Your task to perform on an android device: Open calendar and show me the third week of next month Image 0: 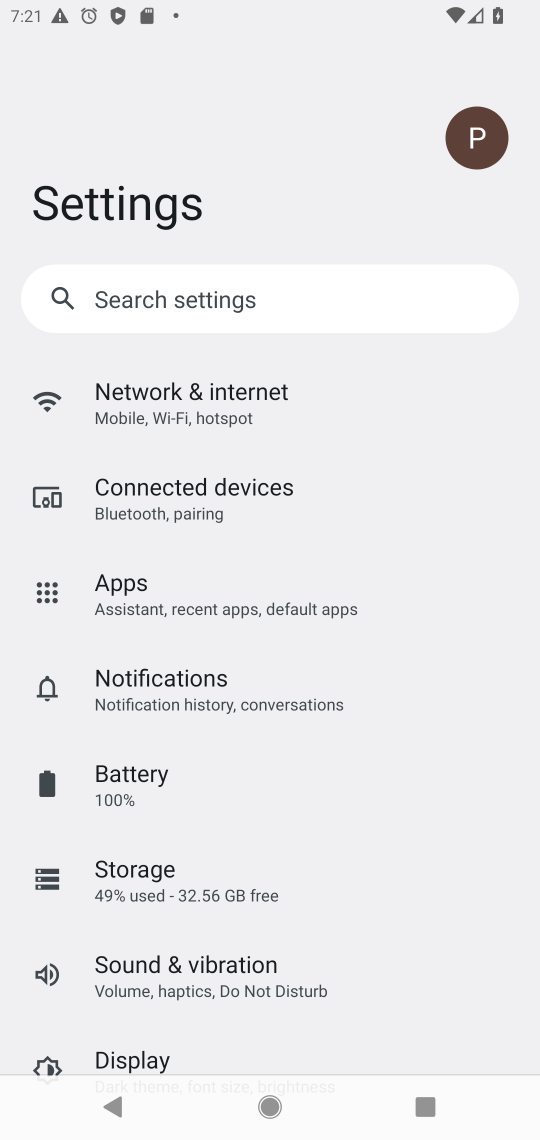
Step 0: press home button
Your task to perform on an android device: Open calendar and show me the third week of next month Image 1: 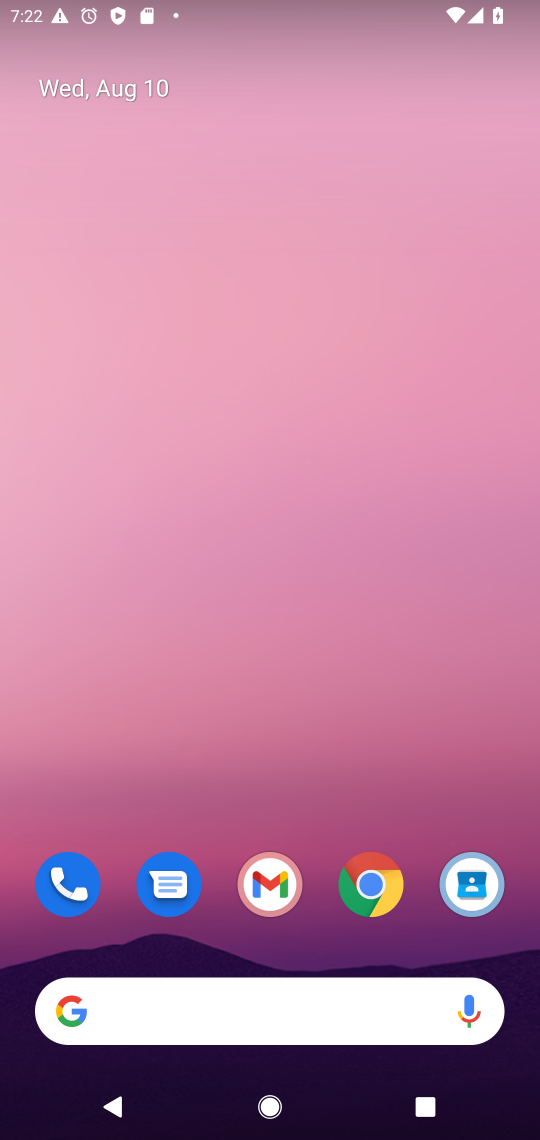
Step 1: drag from (27, 1069) to (252, 488)
Your task to perform on an android device: Open calendar and show me the third week of next month Image 2: 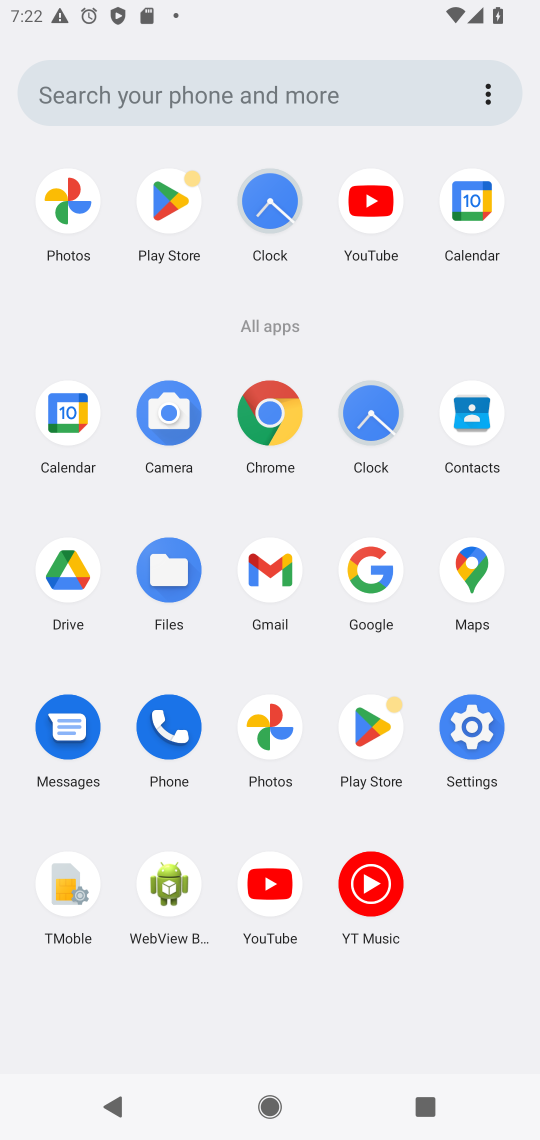
Step 2: click (471, 424)
Your task to perform on an android device: Open calendar and show me the third week of next month Image 3: 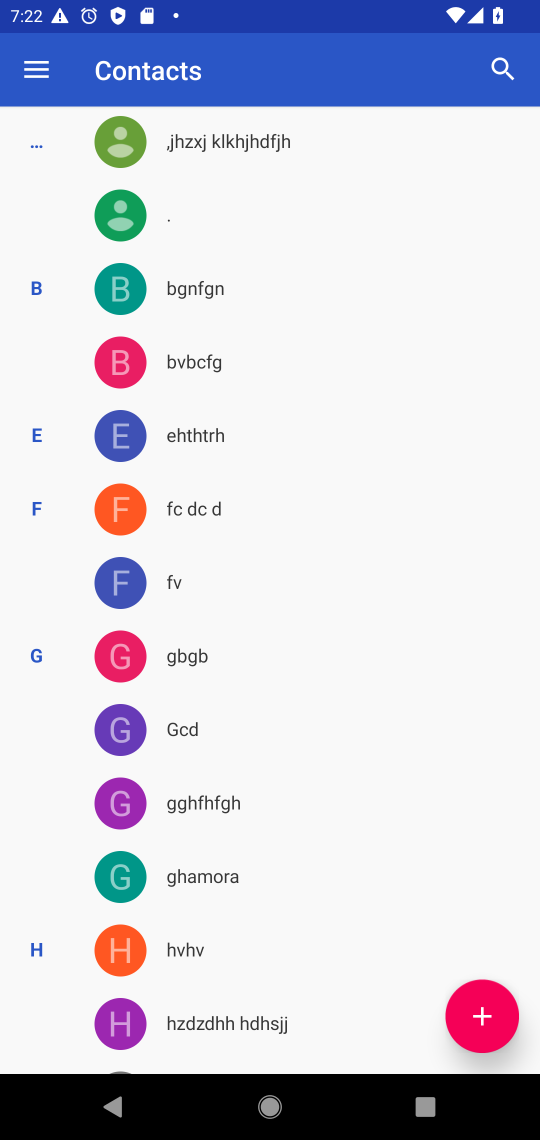
Step 3: press home button
Your task to perform on an android device: Open calendar and show me the third week of next month Image 4: 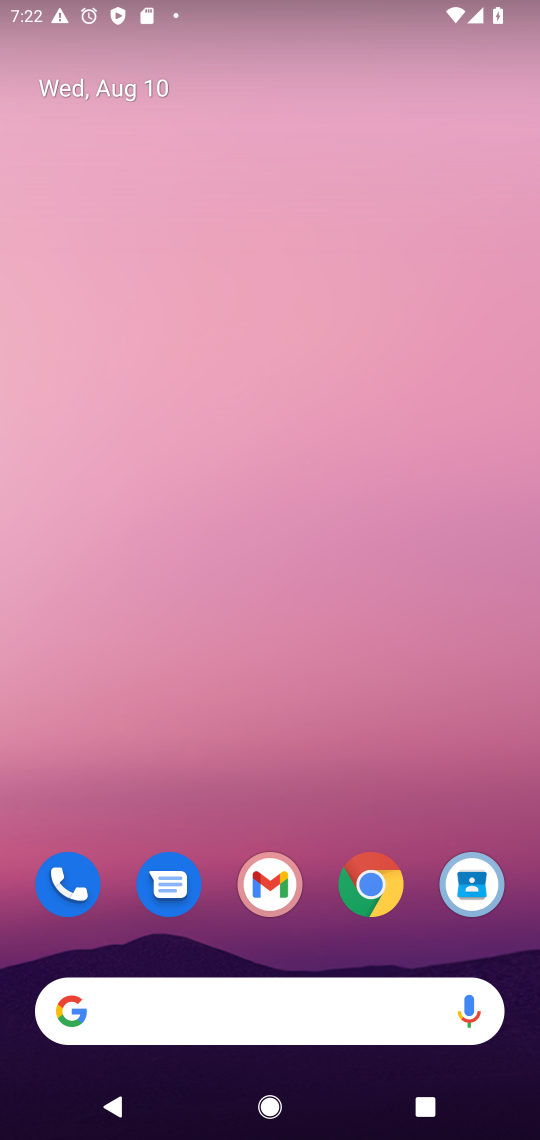
Step 4: drag from (30, 1091) to (213, 567)
Your task to perform on an android device: Open calendar and show me the third week of next month Image 5: 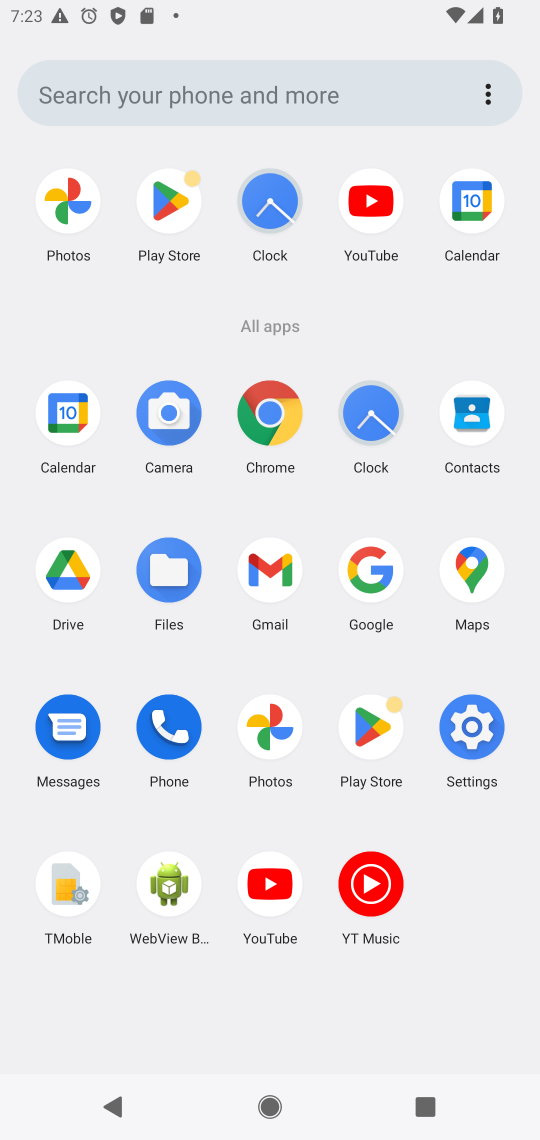
Step 5: click (80, 427)
Your task to perform on an android device: Open calendar and show me the third week of next month Image 6: 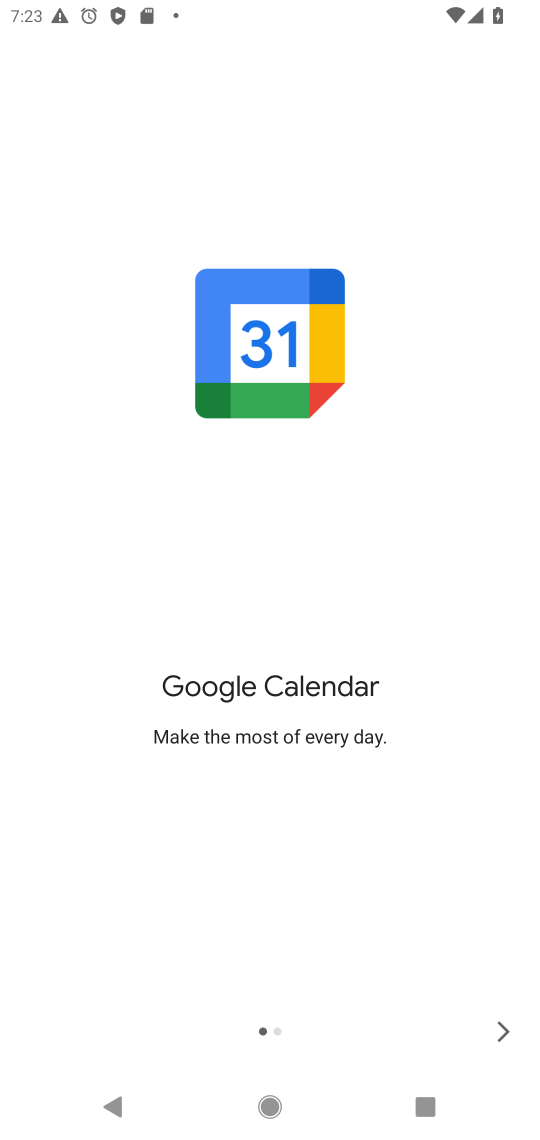
Step 6: click (512, 1028)
Your task to perform on an android device: Open calendar and show me the third week of next month Image 7: 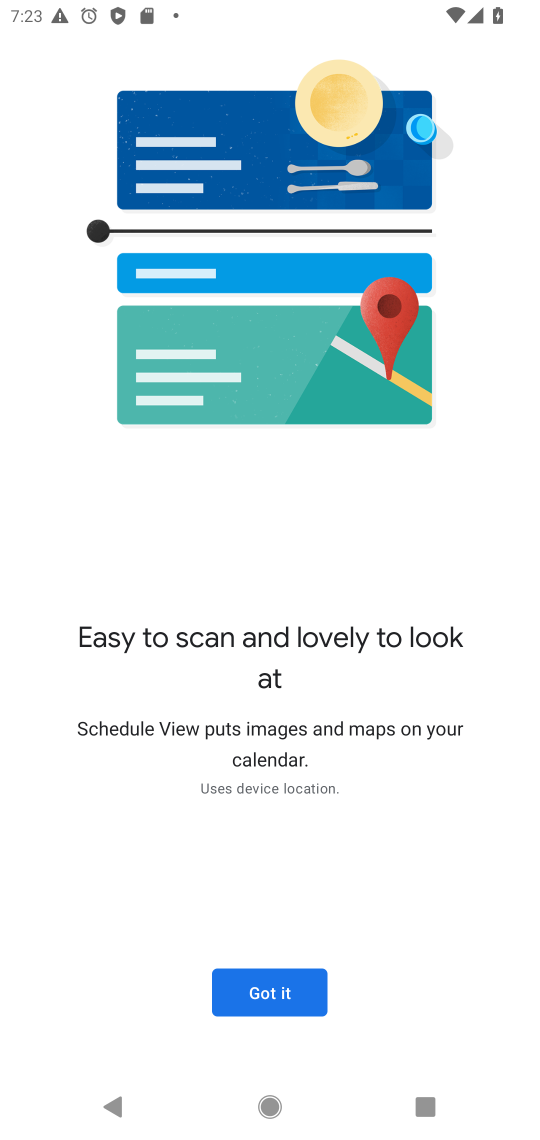
Step 7: click (273, 991)
Your task to perform on an android device: Open calendar and show me the third week of next month Image 8: 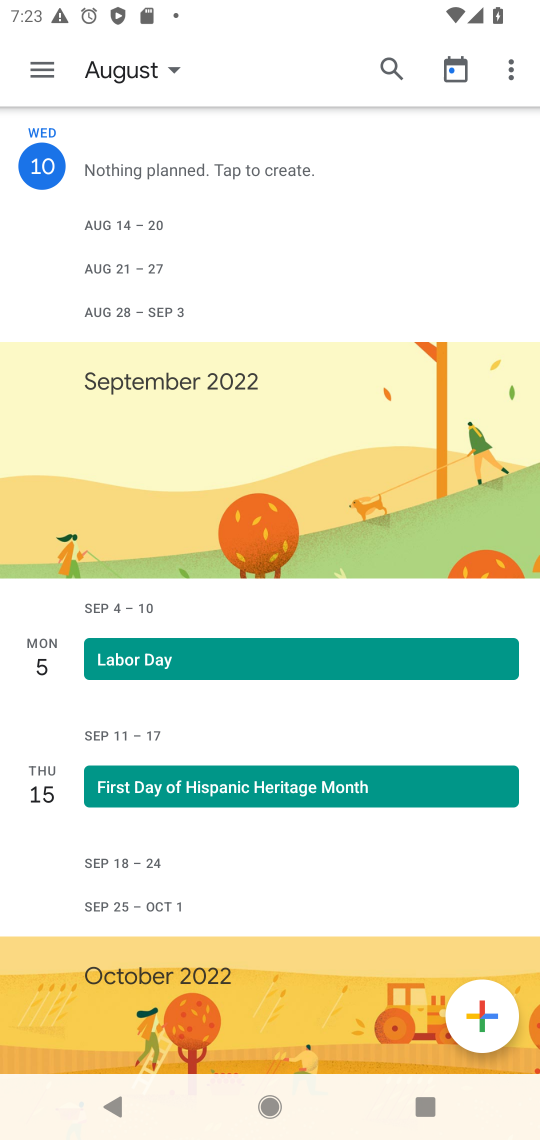
Step 8: click (165, 73)
Your task to perform on an android device: Open calendar and show me the third week of next month Image 9: 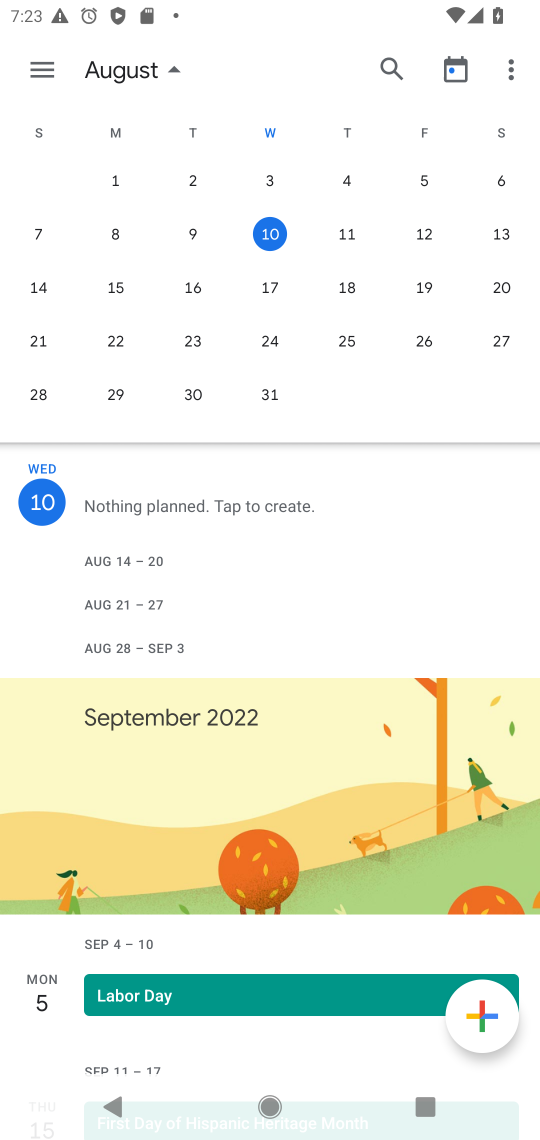
Step 9: click (499, 202)
Your task to perform on an android device: Open calendar and show me the third week of next month Image 10: 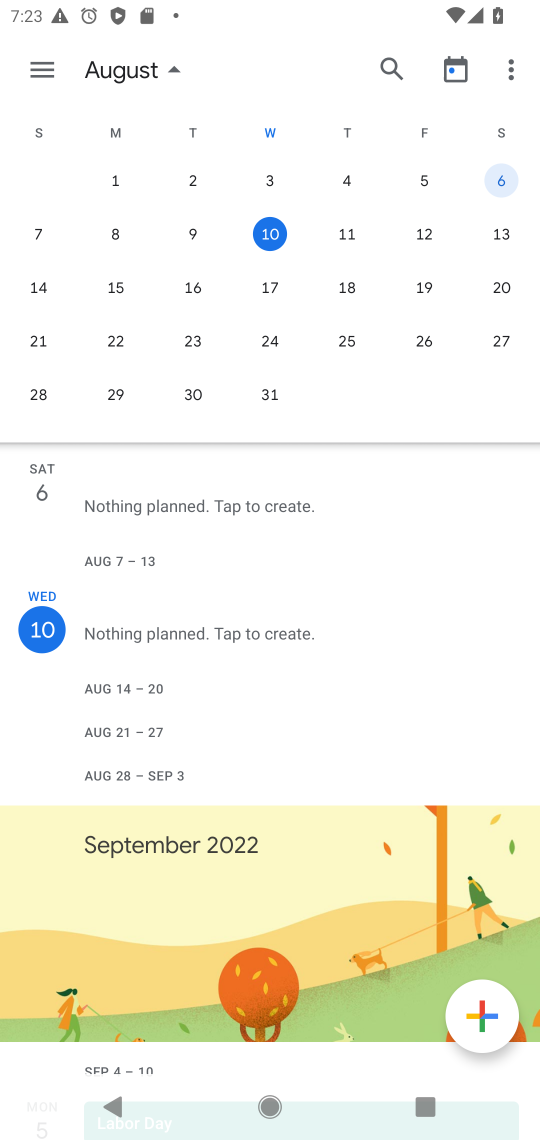
Step 10: drag from (506, 213) to (10, 201)
Your task to perform on an android device: Open calendar and show me the third week of next month Image 11: 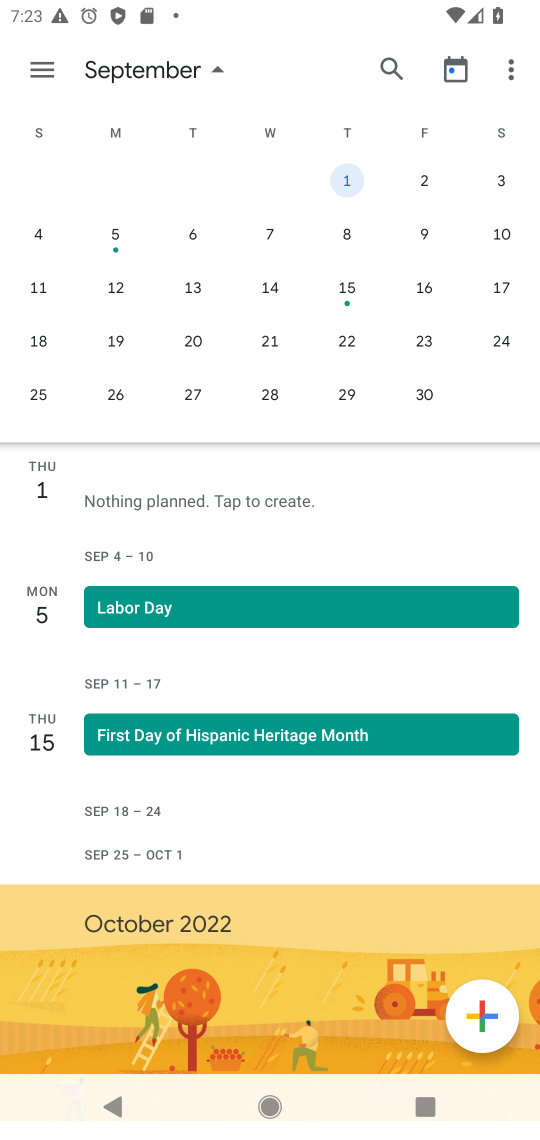
Step 11: drag from (498, 221) to (299, 272)
Your task to perform on an android device: Open calendar and show me the third week of next month Image 12: 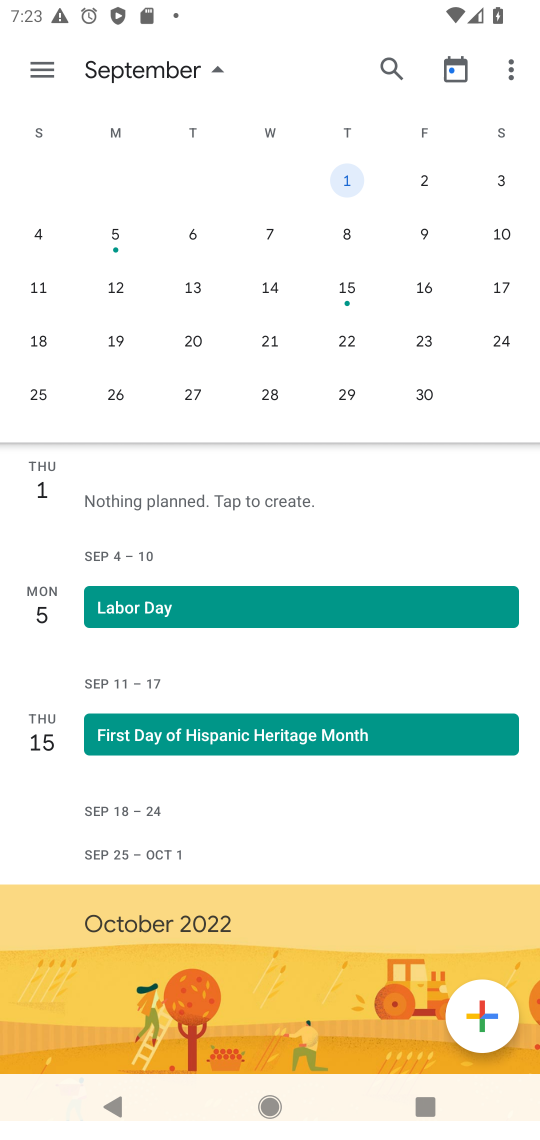
Step 12: click (124, 288)
Your task to perform on an android device: Open calendar and show me the third week of next month Image 13: 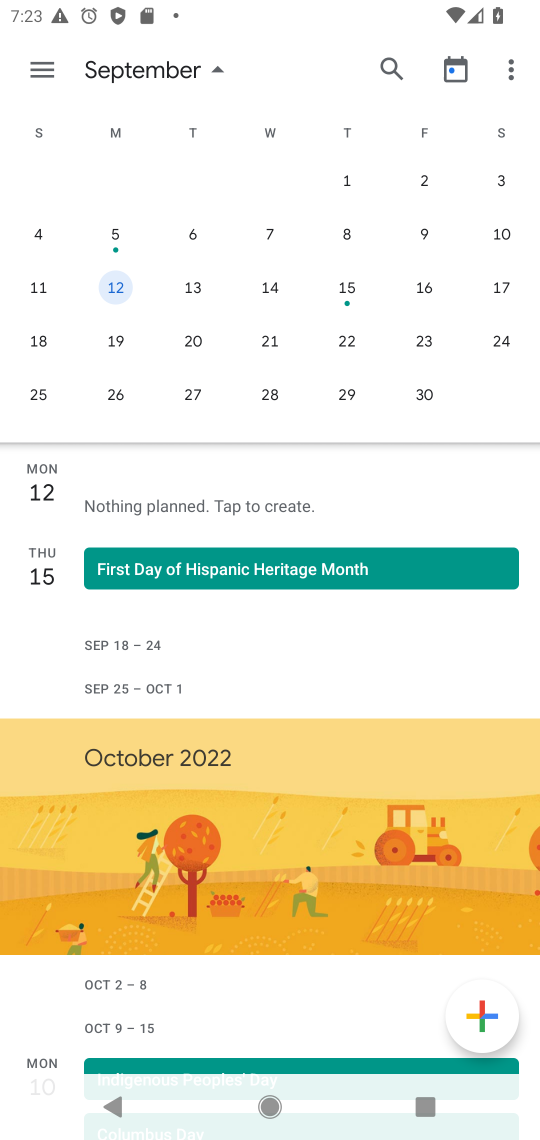
Step 13: task complete